Your task to perform on an android device: Go to Maps Image 0: 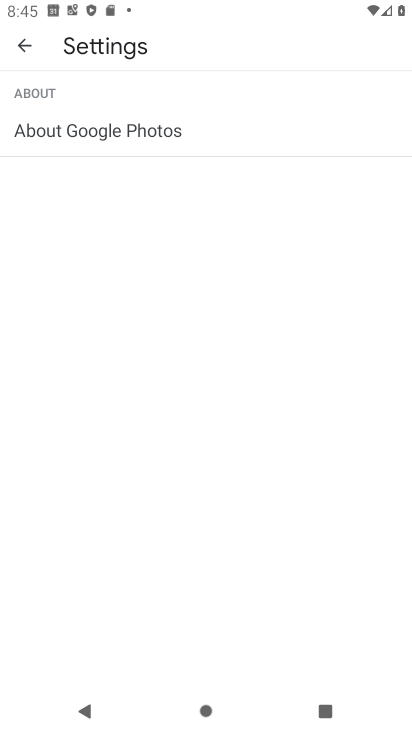
Step 0: drag from (132, 5) to (189, 552)
Your task to perform on an android device: Go to Maps Image 1: 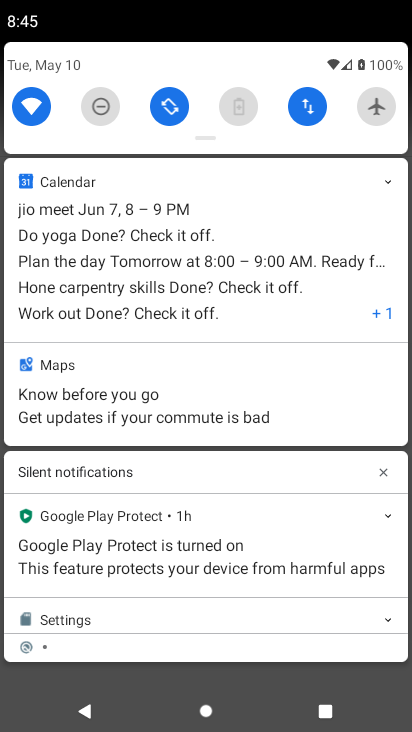
Step 1: click (27, 108)
Your task to perform on an android device: Go to Maps Image 2: 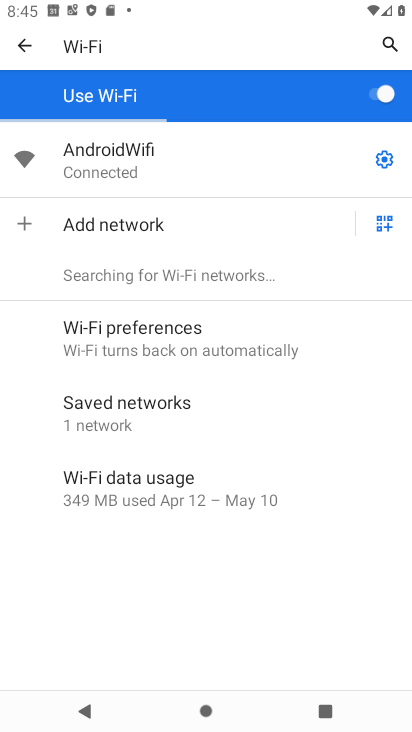
Step 2: task complete